Your task to perform on an android device: turn off data saver in the chrome app Image 0: 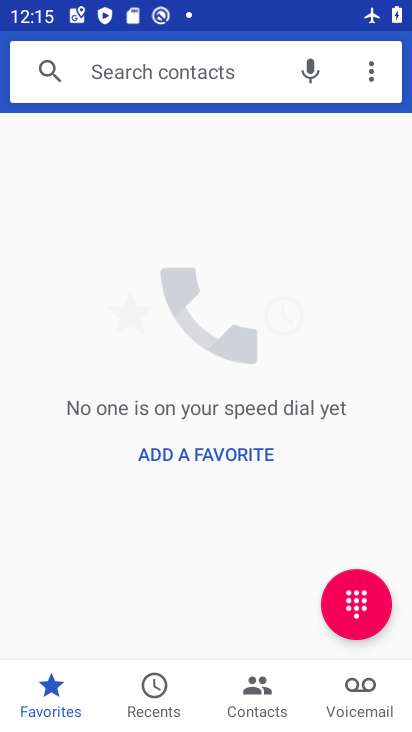
Step 0: press home button
Your task to perform on an android device: turn off data saver in the chrome app Image 1: 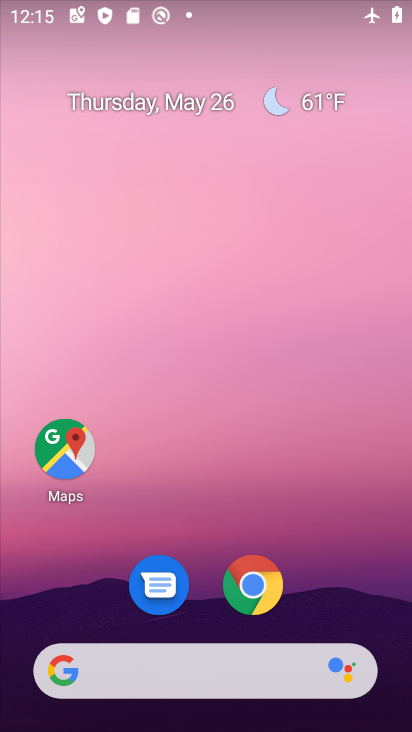
Step 1: click (265, 577)
Your task to perform on an android device: turn off data saver in the chrome app Image 2: 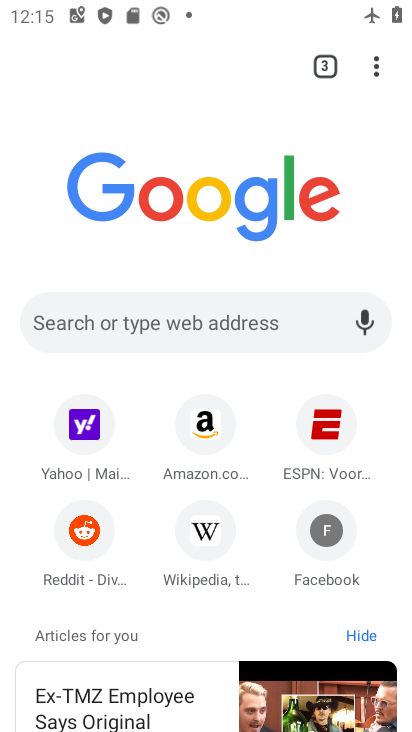
Step 2: click (372, 70)
Your task to perform on an android device: turn off data saver in the chrome app Image 3: 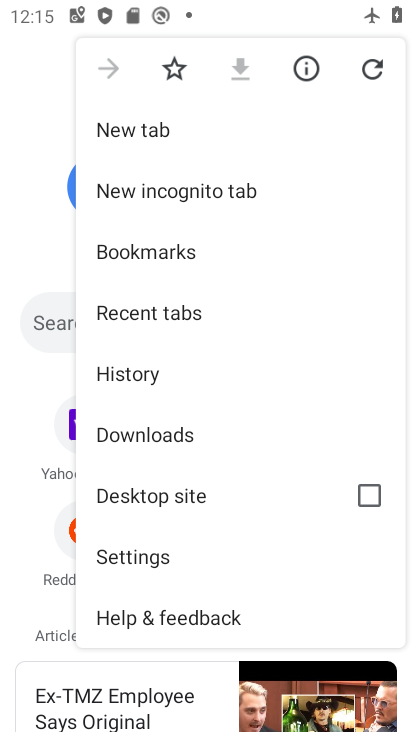
Step 3: click (152, 551)
Your task to perform on an android device: turn off data saver in the chrome app Image 4: 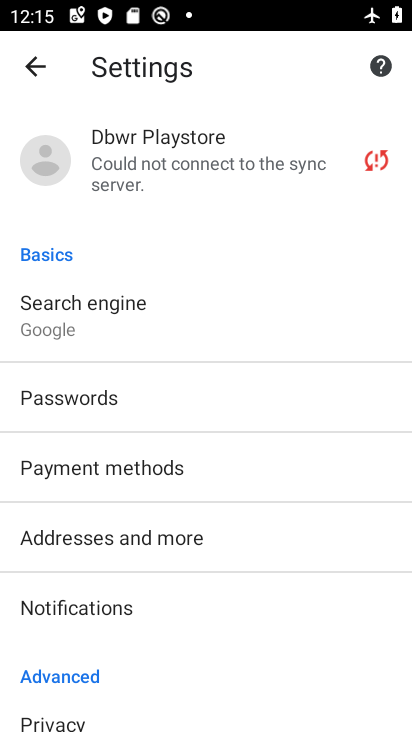
Step 4: drag from (235, 612) to (247, 270)
Your task to perform on an android device: turn off data saver in the chrome app Image 5: 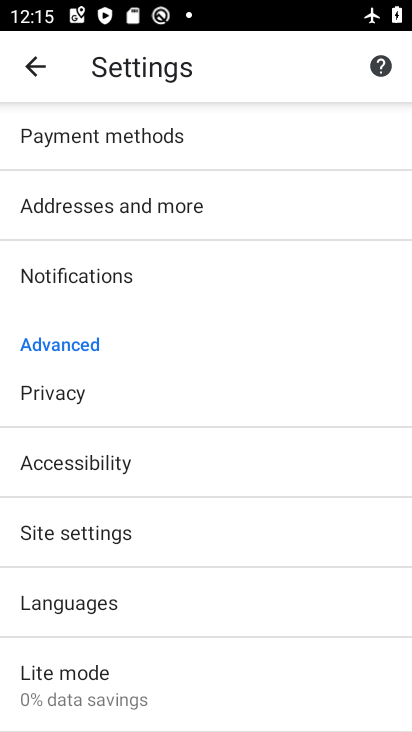
Step 5: click (168, 691)
Your task to perform on an android device: turn off data saver in the chrome app Image 6: 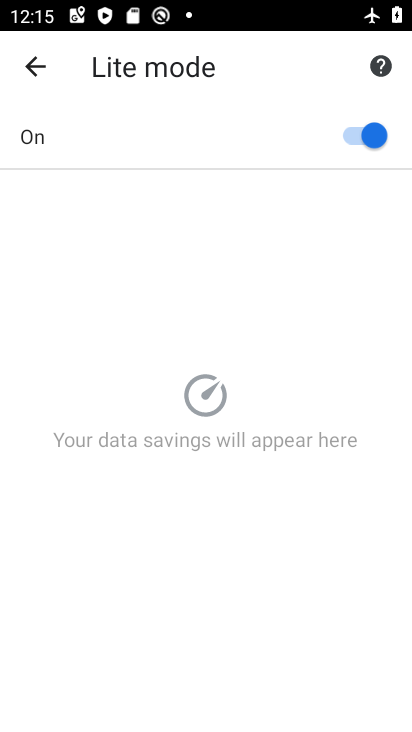
Step 6: click (360, 124)
Your task to perform on an android device: turn off data saver in the chrome app Image 7: 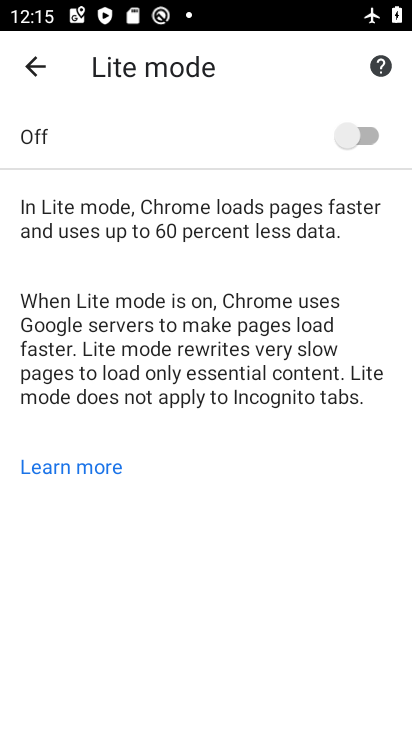
Step 7: task complete